Your task to perform on an android device: Do I have any events today? Image 0: 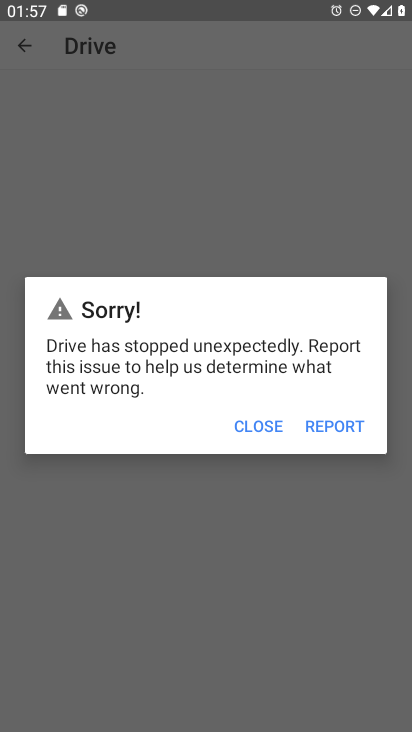
Step 0: press home button
Your task to perform on an android device: Do I have any events today? Image 1: 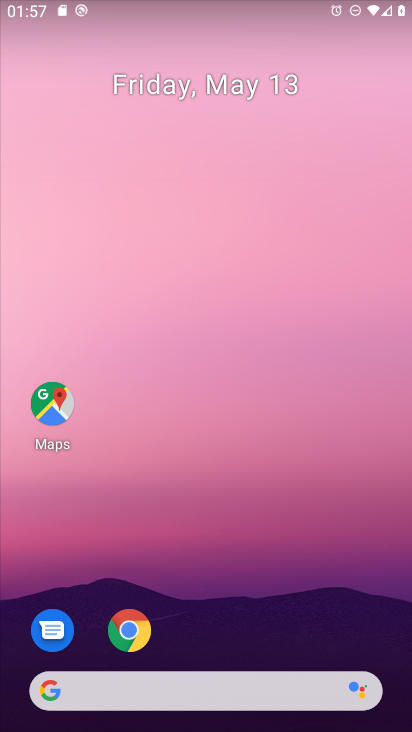
Step 1: drag from (231, 708) to (292, 265)
Your task to perform on an android device: Do I have any events today? Image 2: 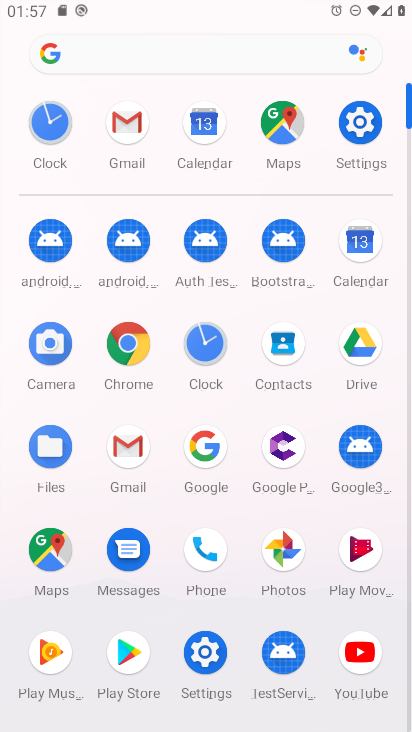
Step 2: click (151, 58)
Your task to perform on an android device: Do I have any events today? Image 3: 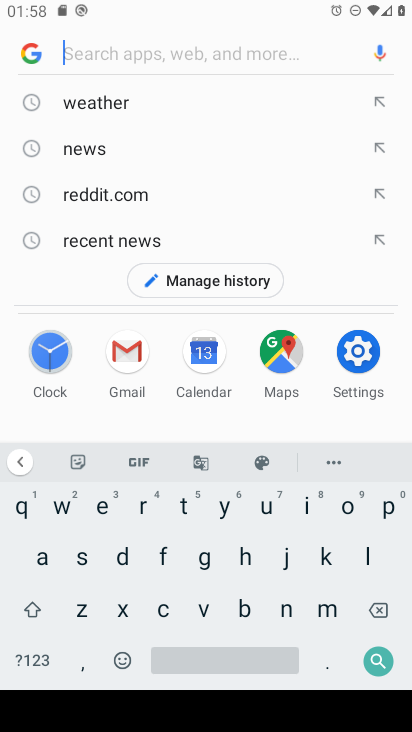
Step 3: press home button
Your task to perform on an android device: Do I have any events today? Image 4: 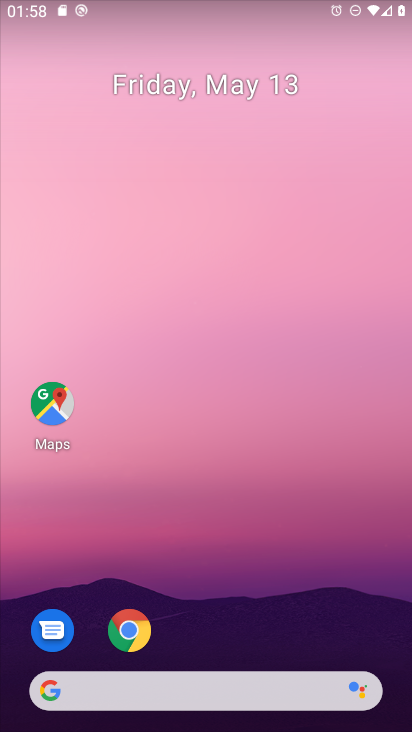
Step 4: drag from (263, 698) to (287, 276)
Your task to perform on an android device: Do I have any events today? Image 5: 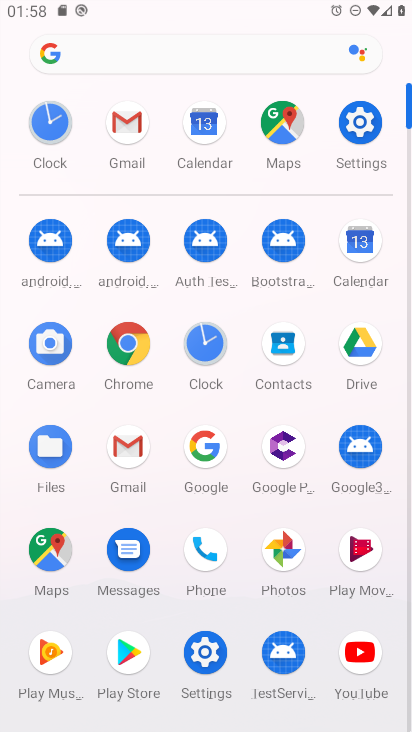
Step 5: click (345, 246)
Your task to perform on an android device: Do I have any events today? Image 6: 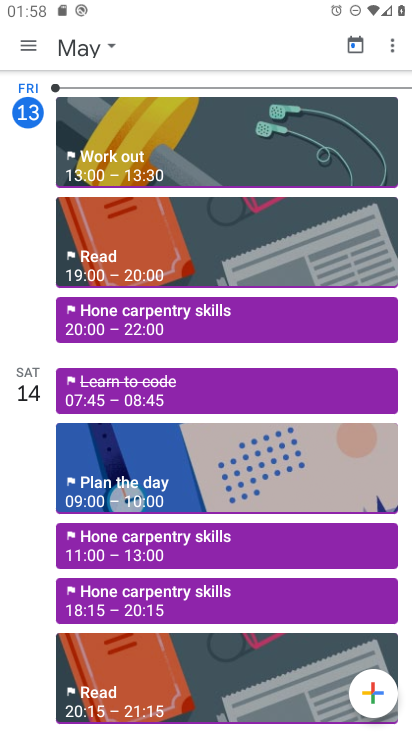
Step 6: task complete